Your task to perform on an android device: add a label to a message in the gmail app Image 0: 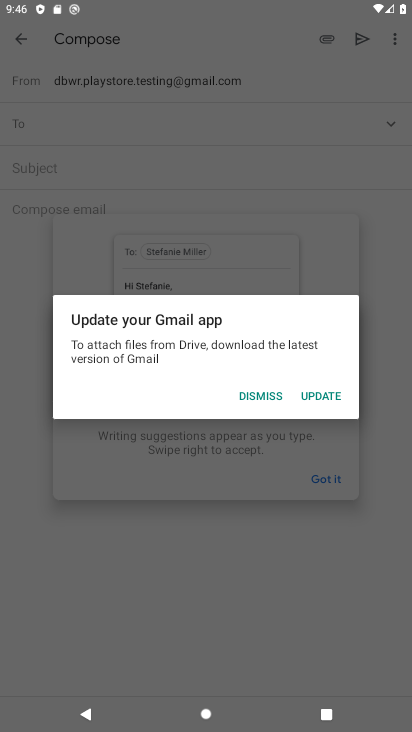
Step 0: press home button
Your task to perform on an android device: add a label to a message in the gmail app Image 1: 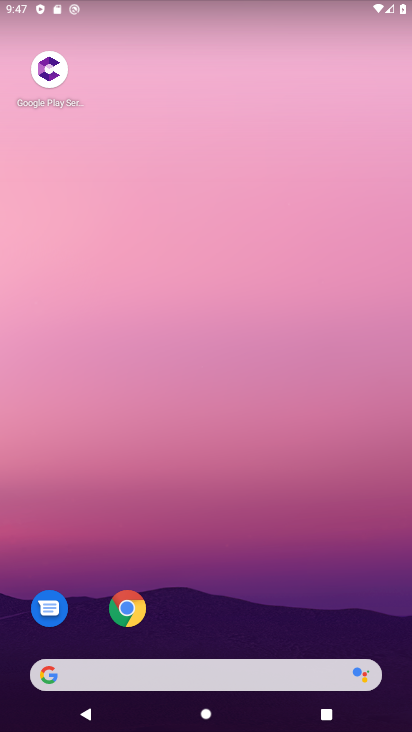
Step 1: drag from (265, 405) to (260, 111)
Your task to perform on an android device: add a label to a message in the gmail app Image 2: 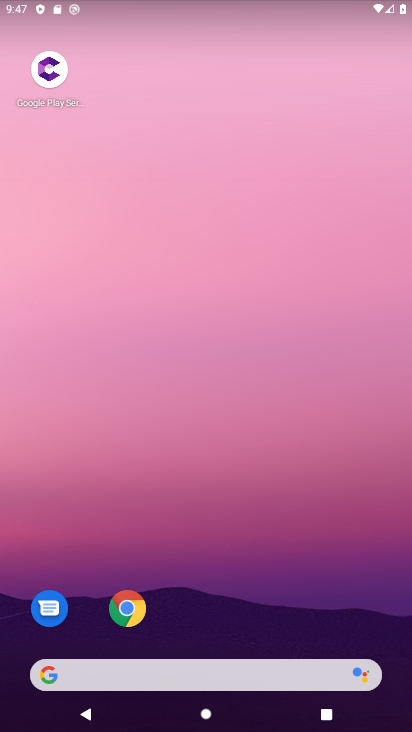
Step 2: drag from (207, 581) to (233, 68)
Your task to perform on an android device: add a label to a message in the gmail app Image 3: 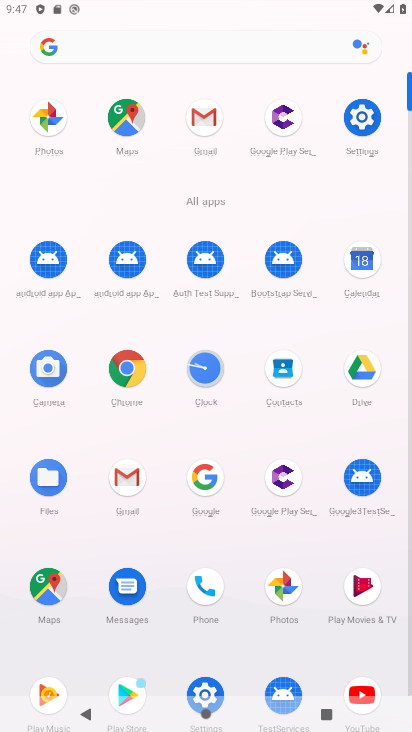
Step 3: click (210, 111)
Your task to perform on an android device: add a label to a message in the gmail app Image 4: 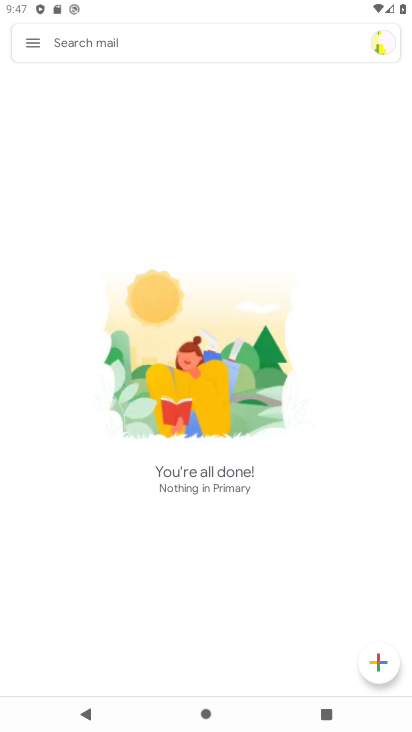
Step 4: click (37, 49)
Your task to perform on an android device: add a label to a message in the gmail app Image 5: 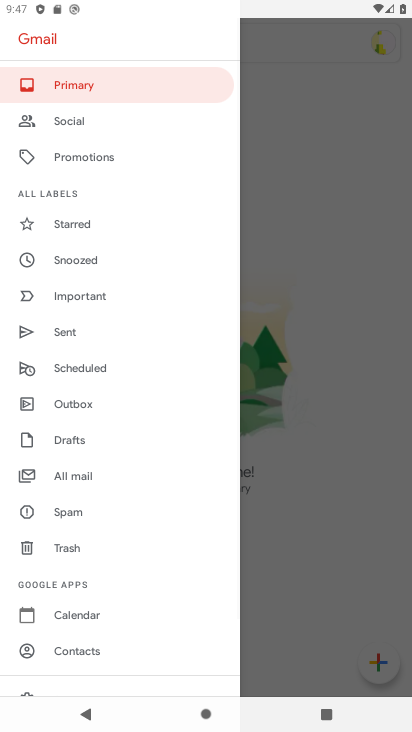
Step 5: click (101, 470)
Your task to perform on an android device: add a label to a message in the gmail app Image 6: 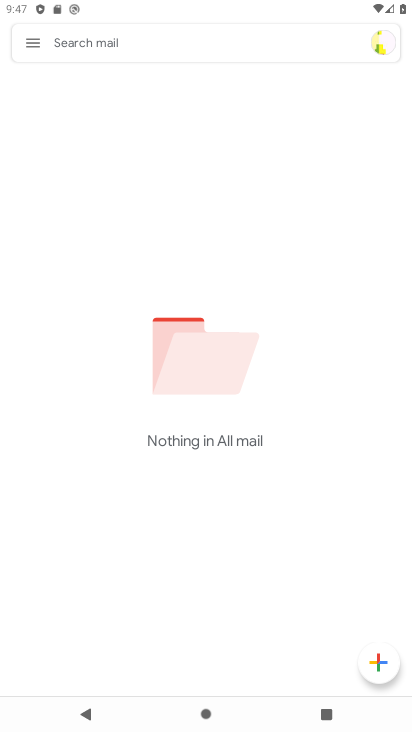
Step 6: task complete